Your task to perform on an android device: Search for "acer nitro" on costco, select the first entry, and add it to the cart. Image 0: 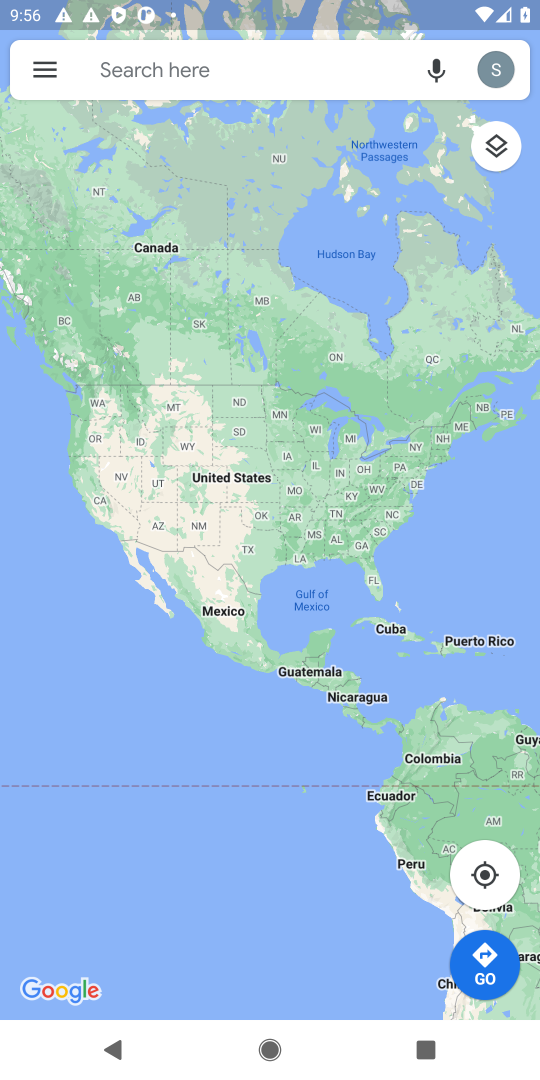
Step 0: press home button
Your task to perform on an android device: Search for "acer nitro" on costco, select the first entry, and add it to the cart. Image 1: 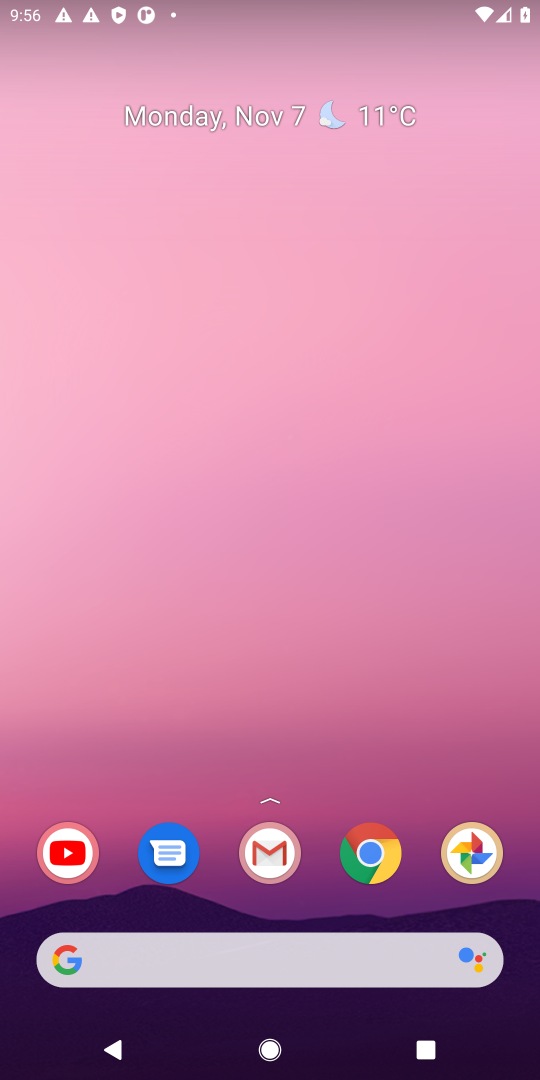
Step 1: click (219, 943)
Your task to perform on an android device: Search for "acer nitro" on costco, select the first entry, and add it to the cart. Image 2: 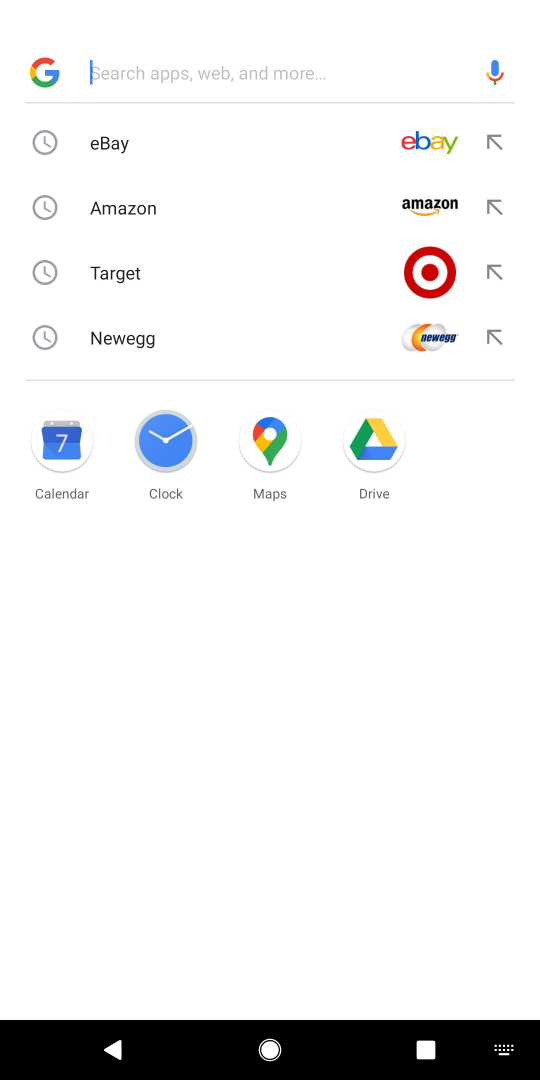
Step 2: type "costco"
Your task to perform on an android device: Search for "acer nitro" on costco, select the first entry, and add it to the cart. Image 3: 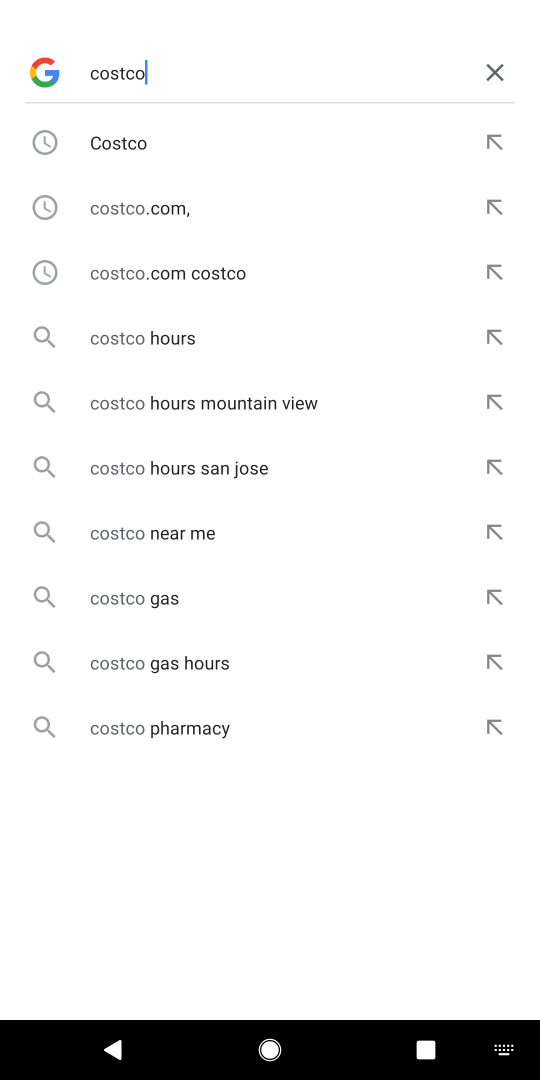
Step 3: click (209, 140)
Your task to perform on an android device: Search for "acer nitro" on costco, select the first entry, and add it to the cart. Image 4: 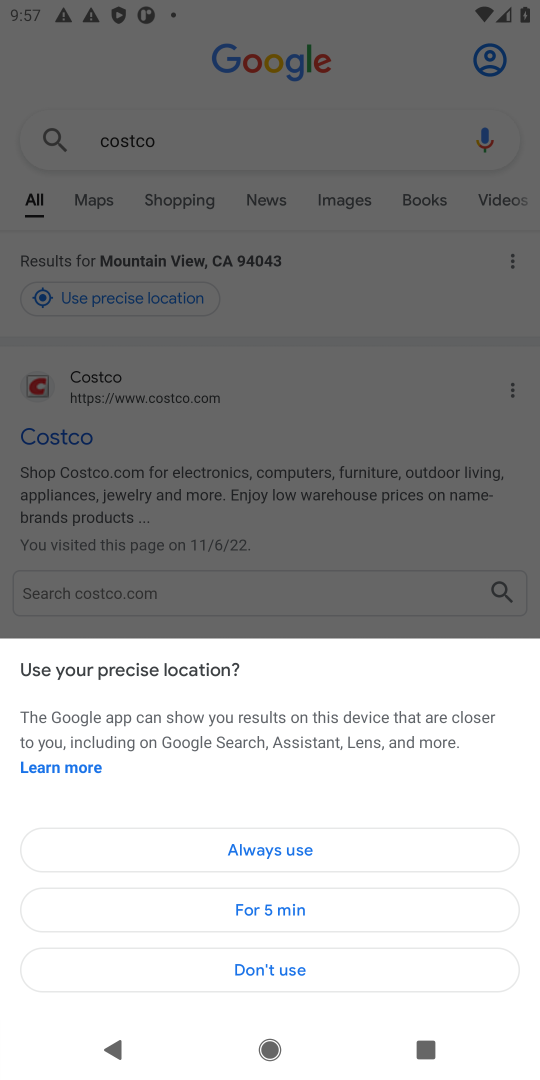
Step 4: click (250, 857)
Your task to perform on an android device: Search for "acer nitro" on costco, select the first entry, and add it to the cart. Image 5: 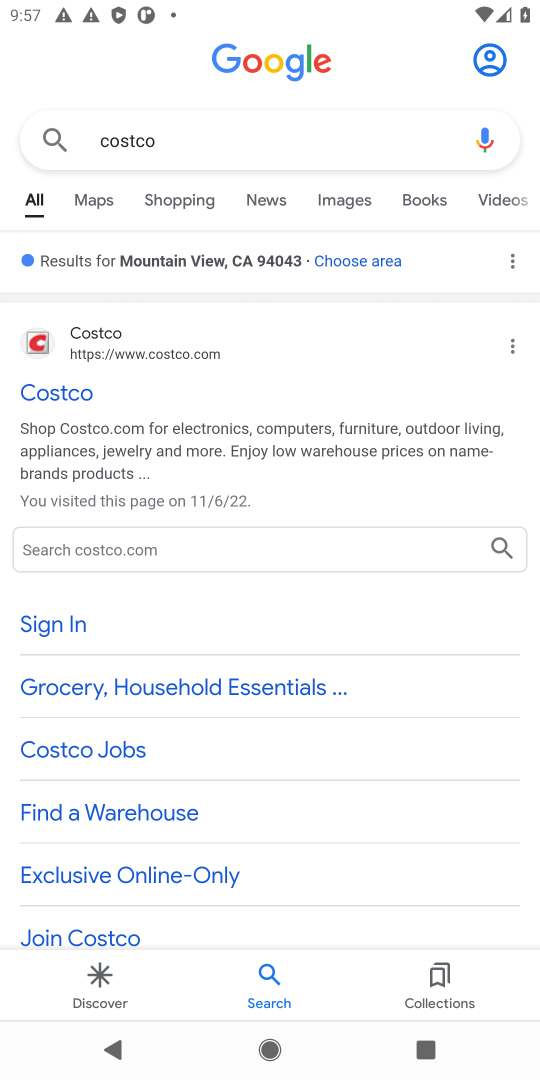
Step 5: click (97, 355)
Your task to perform on an android device: Search for "acer nitro" on costco, select the first entry, and add it to the cart. Image 6: 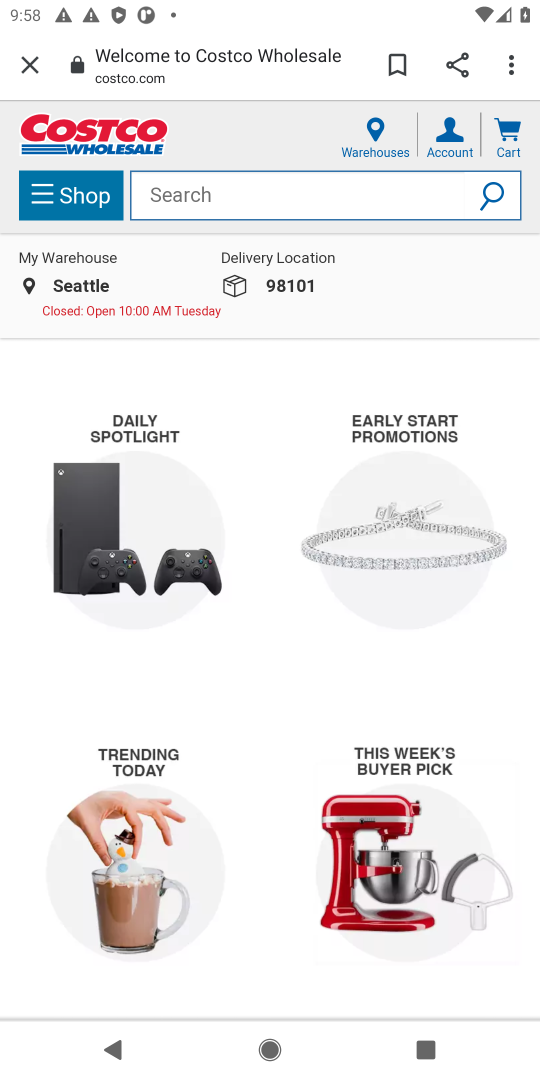
Step 6: task complete